Your task to perform on an android device: When is my next meeting? Image 0: 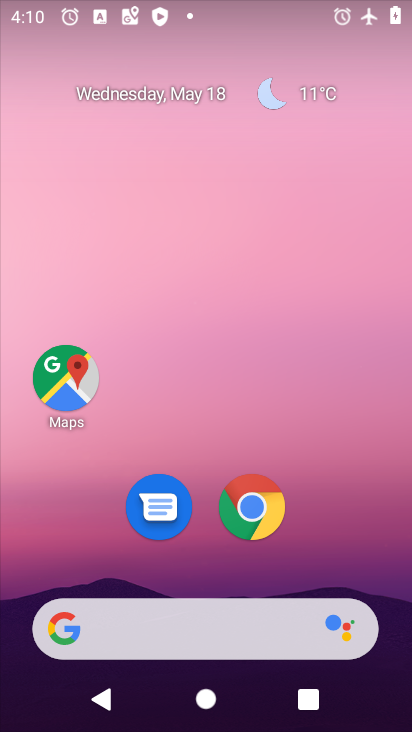
Step 0: drag from (400, 615) to (324, 166)
Your task to perform on an android device: When is my next meeting? Image 1: 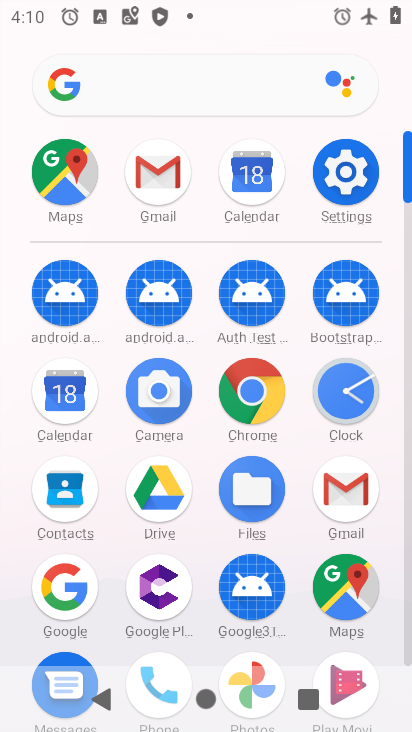
Step 1: click (406, 652)
Your task to perform on an android device: When is my next meeting? Image 2: 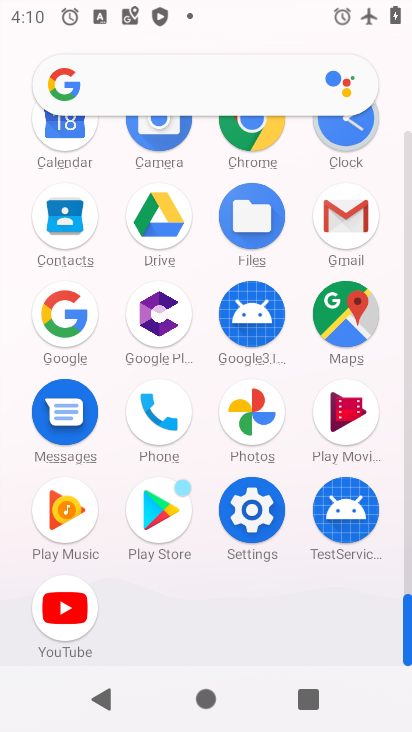
Step 2: click (60, 138)
Your task to perform on an android device: When is my next meeting? Image 3: 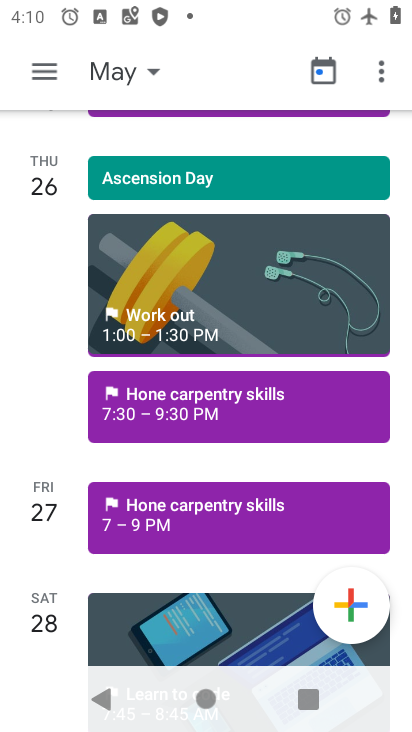
Step 3: task complete